Your task to perform on an android device: remove spam from my inbox in the gmail app Image 0: 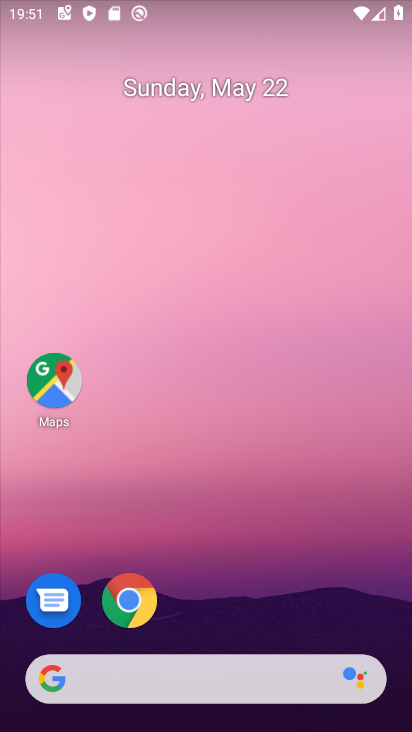
Step 0: drag from (256, 616) to (246, 50)
Your task to perform on an android device: remove spam from my inbox in the gmail app Image 1: 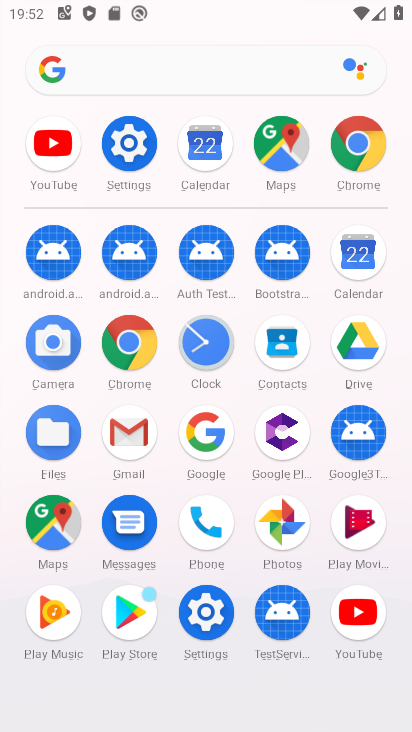
Step 1: click (127, 428)
Your task to perform on an android device: remove spam from my inbox in the gmail app Image 2: 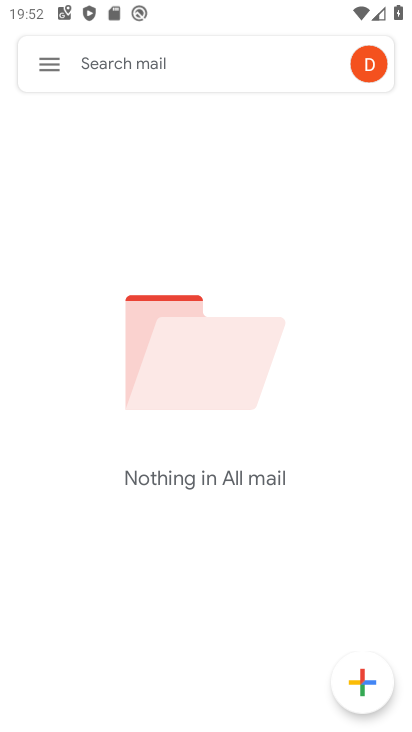
Step 2: click (52, 59)
Your task to perform on an android device: remove spam from my inbox in the gmail app Image 3: 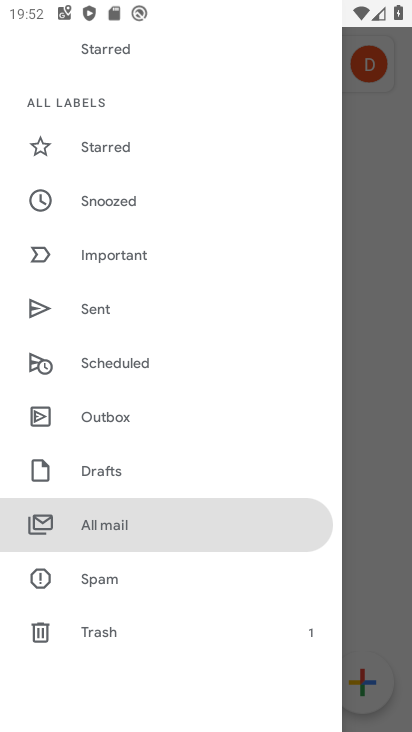
Step 3: click (110, 575)
Your task to perform on an android device: remove spam from my inbox in the gmail app Image 4: 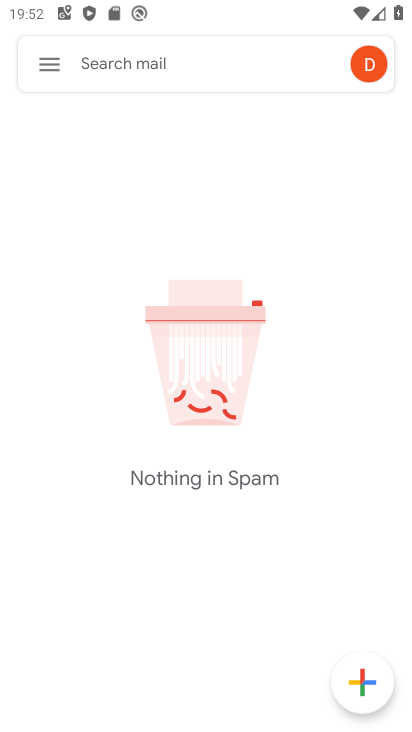
Step 4: task complete